Your task to perform on an android device: see creations saved in the google photos Image 0: 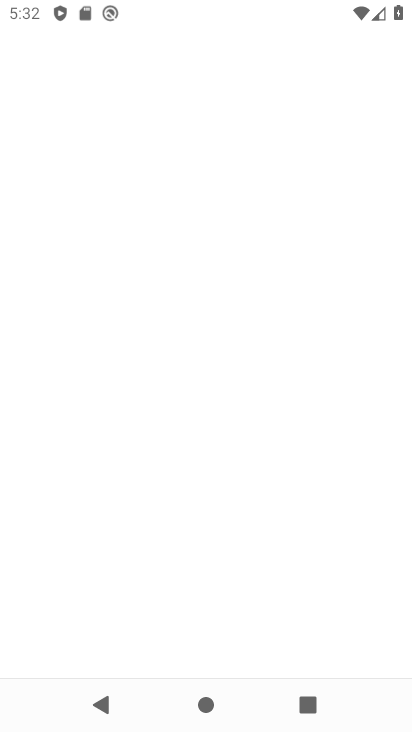
Step 0: drag from (248, 566) to (171, 144)
Your task to perform on an android device: see creations saved in the google photos Image 1: 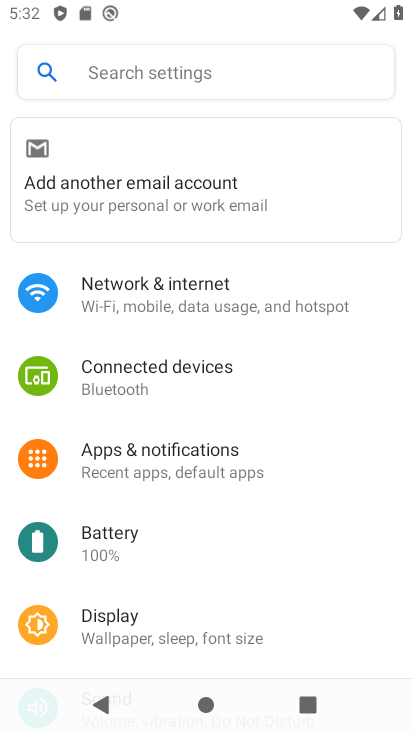
Step 1: press home button
Your task to perform on an android device: see creations saved in the google photos Image 2: 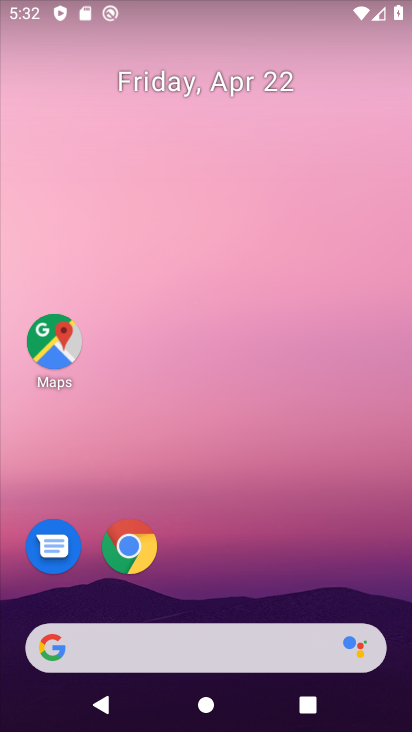
Step 2: drag from (237, 469) to (256, 173)
Your task to perform on an android device: see creations saved in the google photos Image 3: 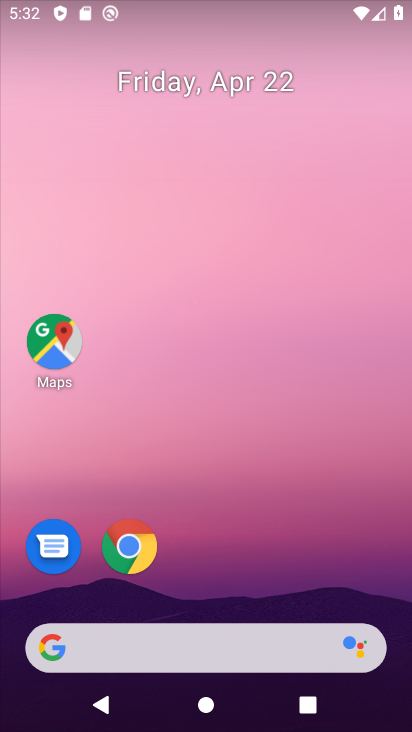
Step 3: drag from (236, 571) to (215, 136)
Your task to perform on an android device: see creations saved in the google photos Image 4: 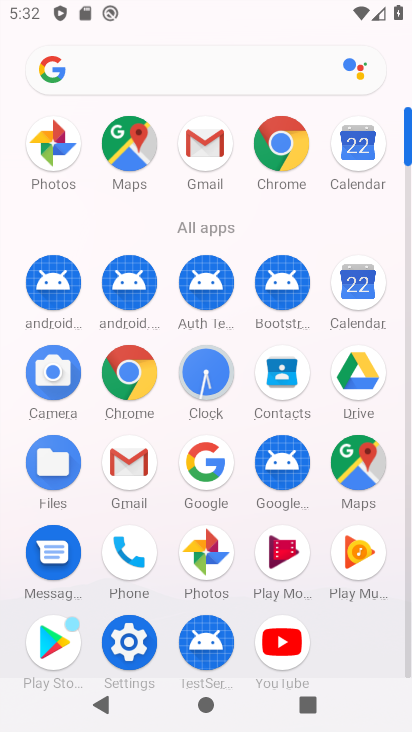
Step 4: click (200, 547)
Your task to perform on an android device: see creations saved in the google photos Image 5: 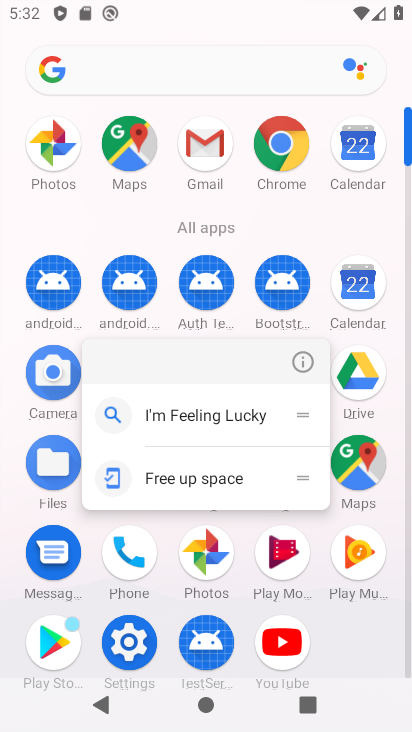
Step 5: click (213, 560)
Your task to perform on an android device: see creations saved in the google photos Image 6: 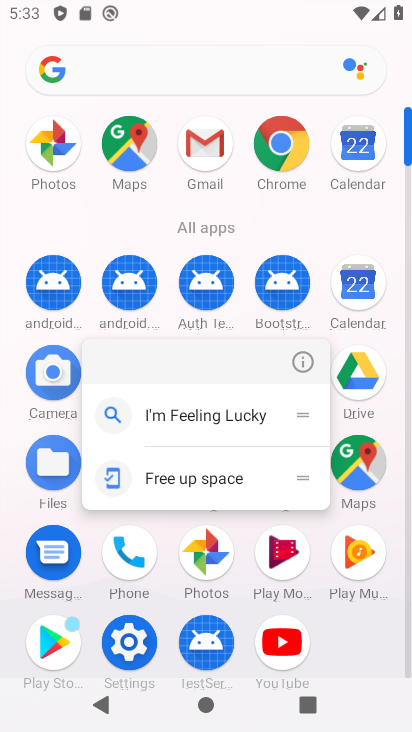
Step 6: click (217, 557)
Your task to perform on an android device: see creations saved in the google photos Image 7: 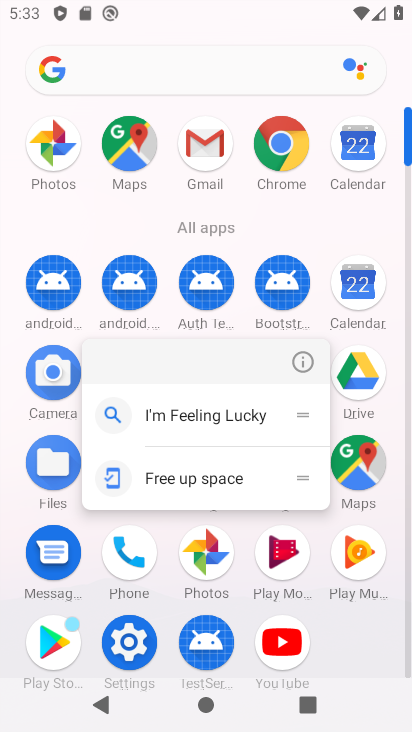
Step 7: click (206, 555)
Your task to perform on an android device: see creations saved in the google photos Image 8: 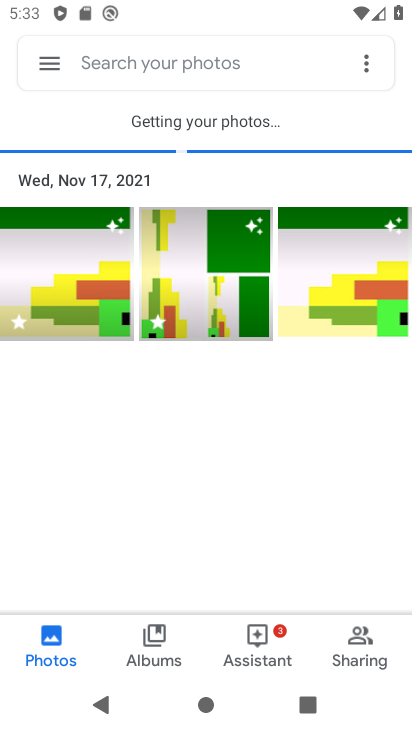
Step 8: click (50, 62)
Your task to perform on an android device: see creations saved in the google photos Image 9: 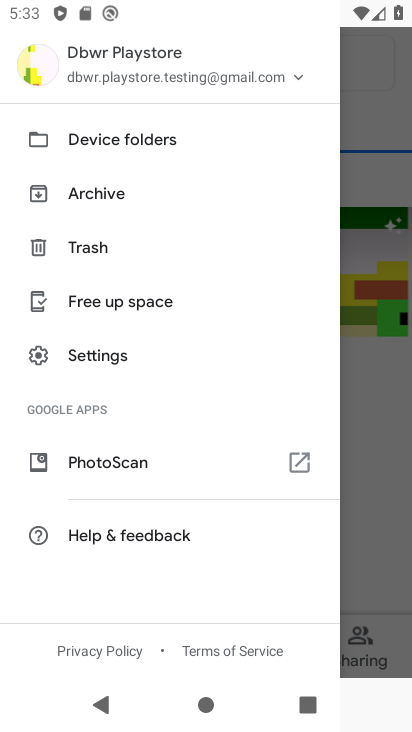
Step 9: press back button
Your task to perform on an android device: see creations saved in the google photos Image 10: 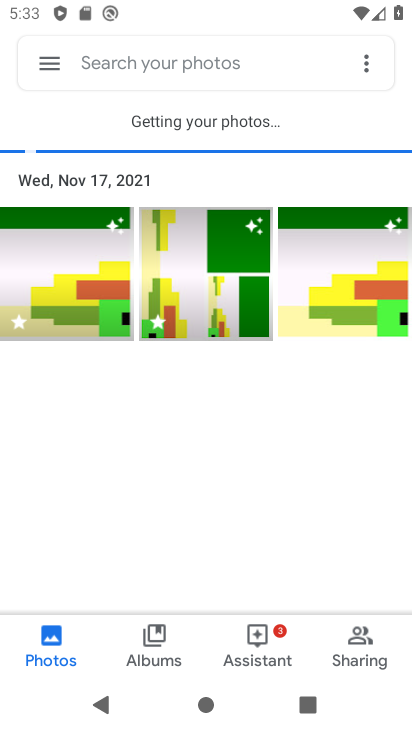
Step 10: click (212, 61)
Your task to perform on an android device: see creations saved in the google photos Image 11: 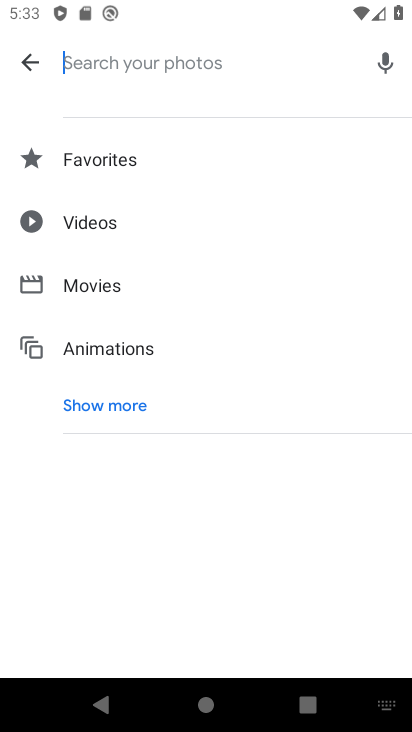
Step 11: click (102, 404)
Your task to perform on an android device: see creations saved in the google photos Image 12: 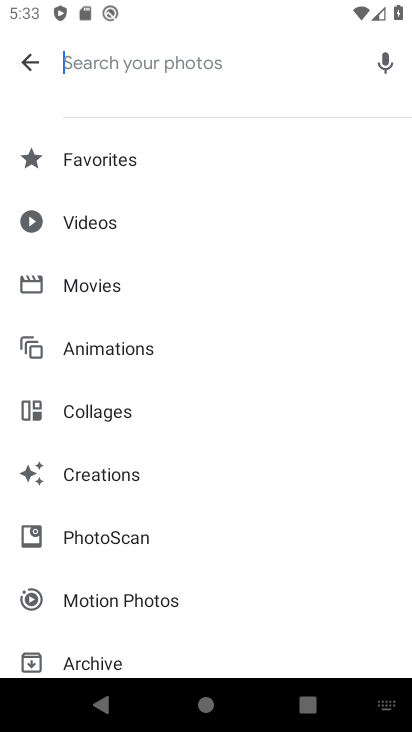
Step 12: click (100, 478)
Your task to perform on an android device: see creations saved in the google photos Image 13: 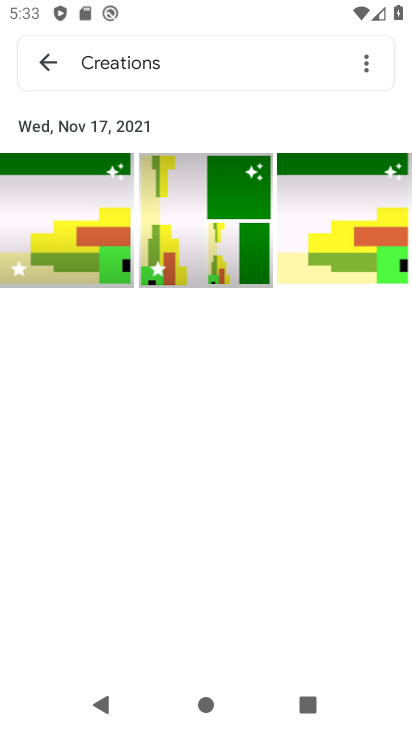
Step 13: task complete